Your task to perform on an android device: Is it going to rain this weekend? Image 0: 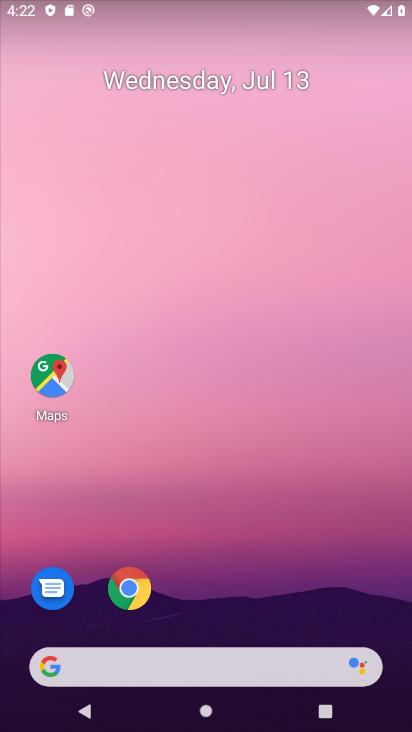
Step 0: drag from (42, 696) to (223, 131)
Your task to perform on an android device: Is it going to rain this weekend? Image 1: 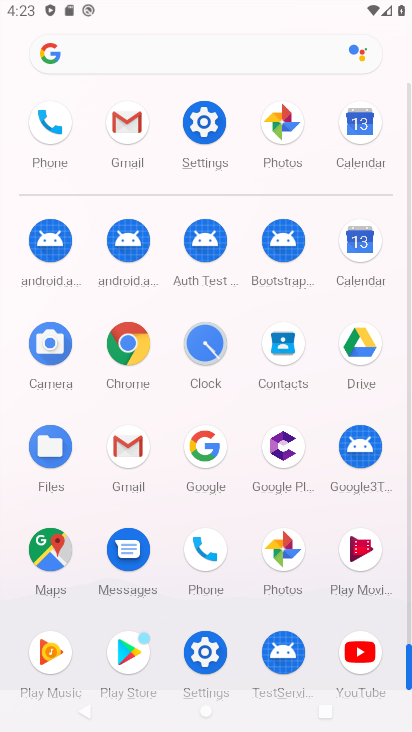
Step 1: click (113, 369)
Your task to perform on an android device: Is it going to rain this weekend? Image 2: 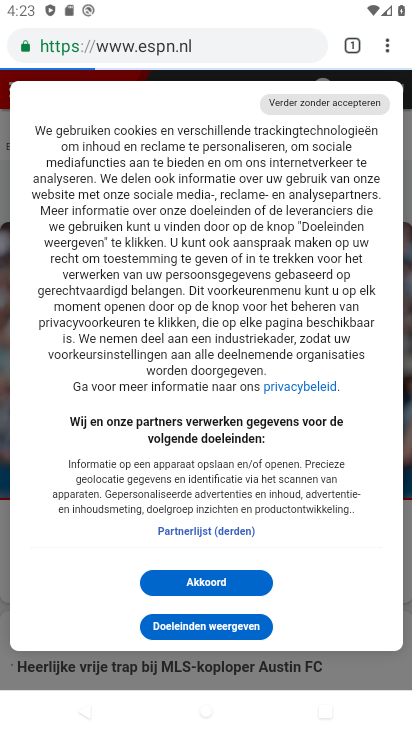
Step 2: click (175, 46)
Your task to perform on an android device: Is it going to rain this weekend? Image 3: 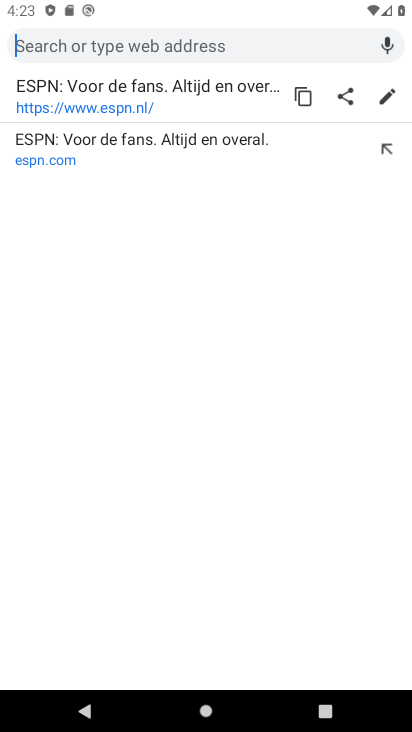
Step 3: type "Is it going to rain this weekend?"
Your task to perform on an android device: Is it going to rain this weekend? Image 4: 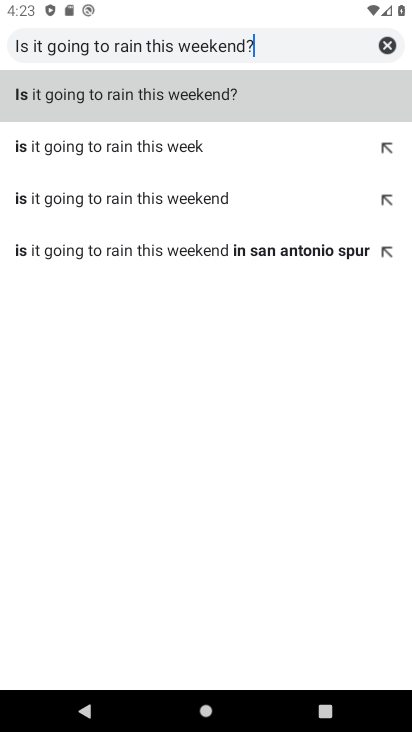
Step 4: type ""
Your task to perform on an android device: Is it going to rain this weekend? Image 5: 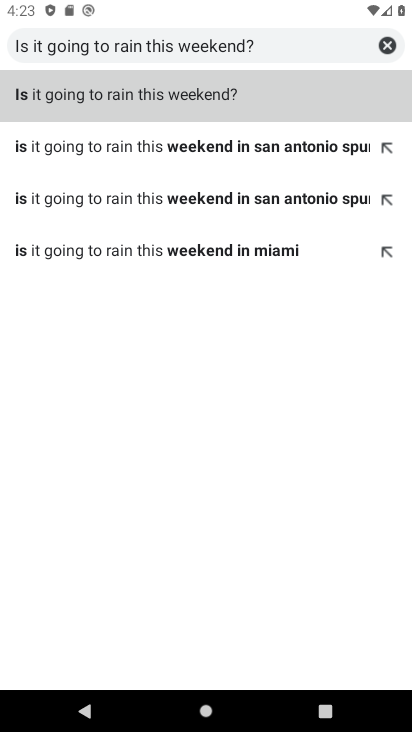
Step 5: click (109, 94)
Your task to perform on an android device: Is it going to rain this weekend? Image 6: 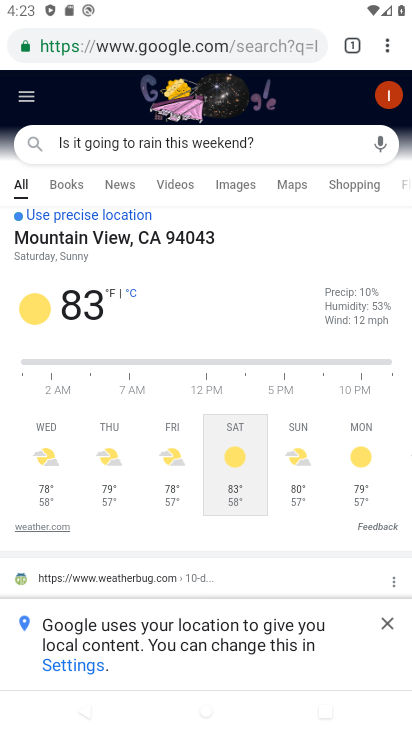
Step 6: task complete